Your task to perform on an android device: Open Google Maps and go to "Timeline" Image 0: 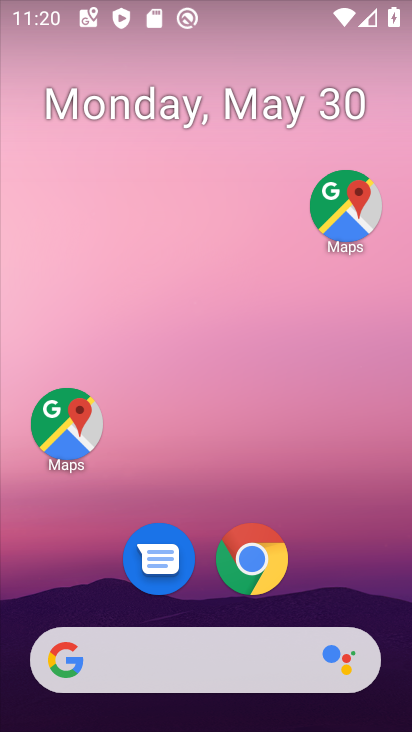
Step 0: drag from (348, 508) to (269, 107)
Your task to perform on an android device: Open Google Maps and go to "Timeline" Image 1: 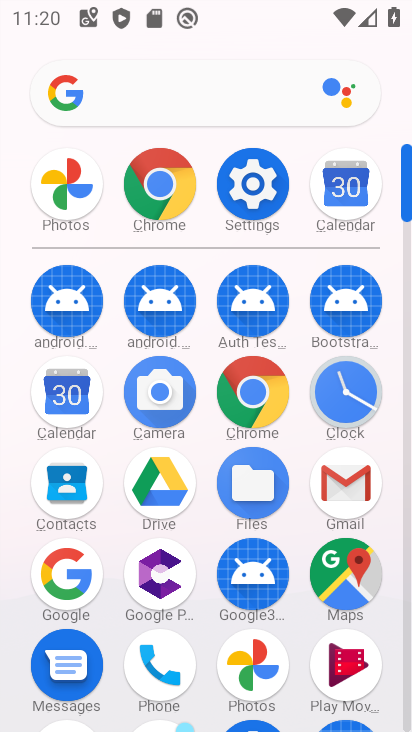
Step 1: click (355, 499)
Your task to perform on an android device: Open Google Maps and go to "Timeline" Image 2: 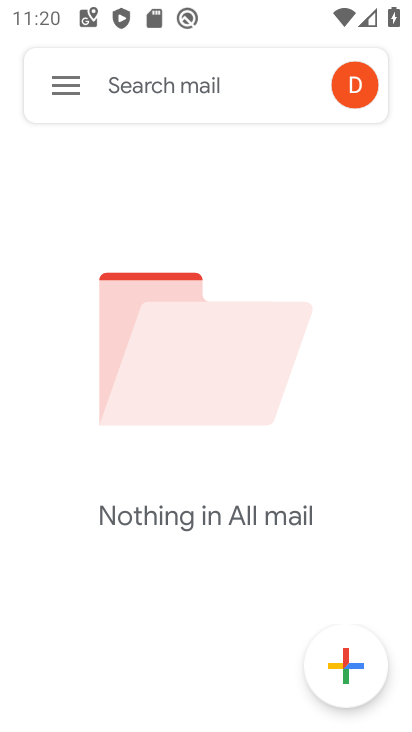
Step 2: press home button
Your task to perform on an android device: Open Google Maps and go to "Timeline" Image 3: 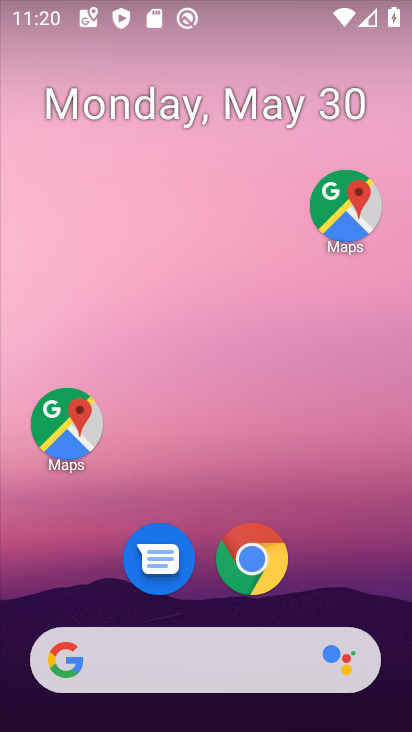
Step 3: click (64, 434)
Your task to perform on an android device: Open Google Maps and go to "Timeline" Image 4: 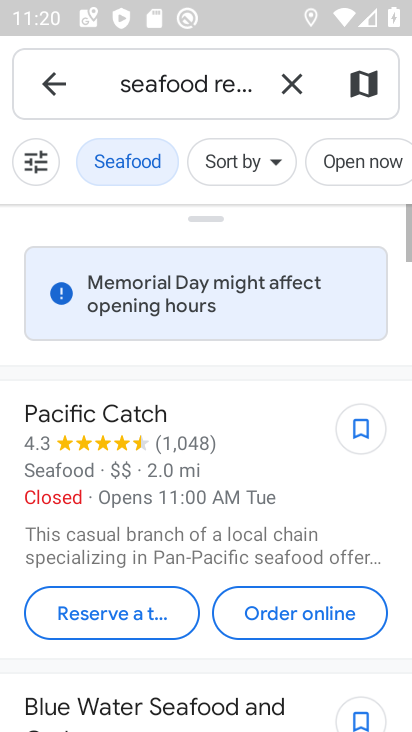
Step 4: click (68, 86)
Your task to perform on an android device: Open Google Maps and go to "Timeline" Image 5: 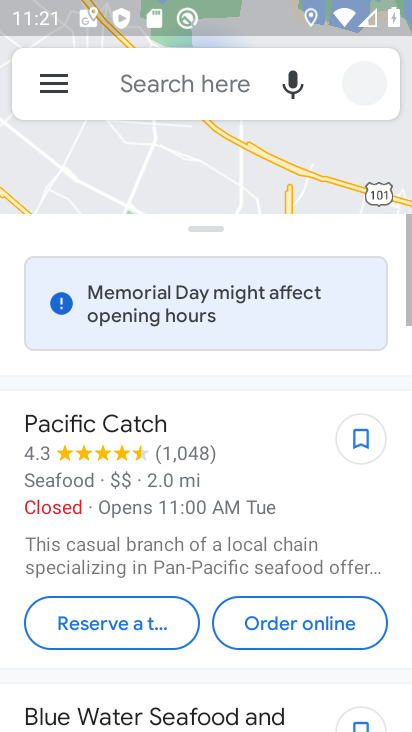
Step 5: click (68, 86)
Your task to perform on an android device: Open Google Maps and go to "Timeline" Image 6: 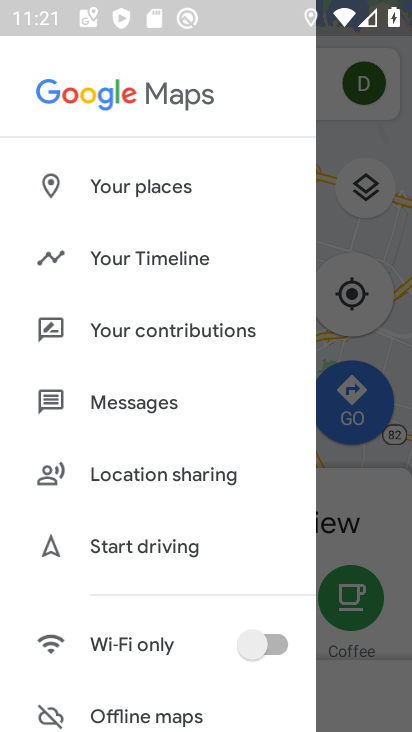
Step 6: click (120, 260)
Your task to perform on an android device: Open Google Maps and go to "Timeline" Image 7: 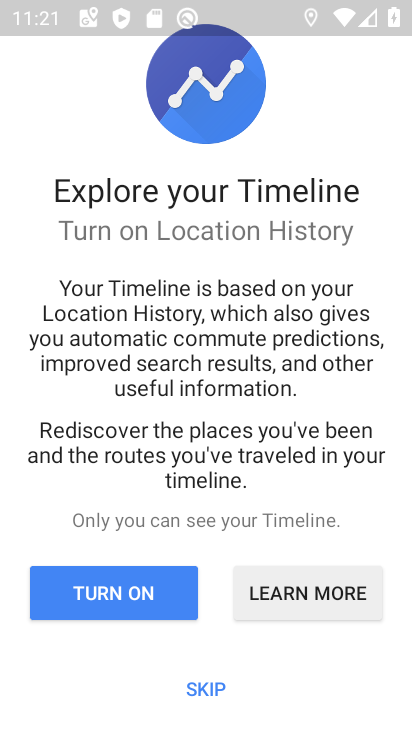
Step 7: click (131, 594)
Your task to perform on an android device: Open Google Maps and go to "Timeline" Image 8: 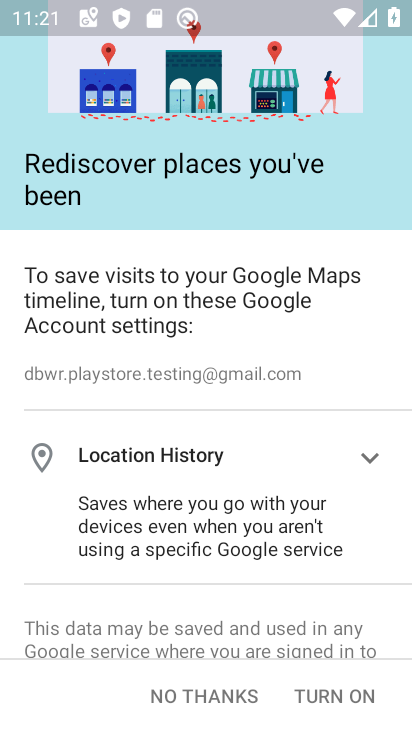
Step 8: click (223, 680)
Your task to perform on an android device: Open Google Maps and go to "Timeline" Image 9: 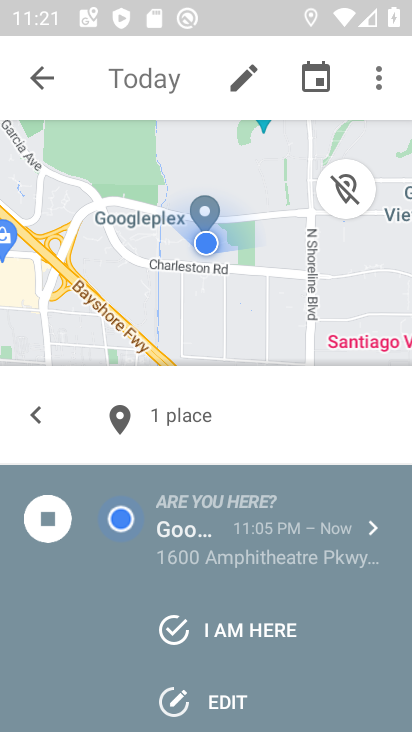
Step 9: task complete